Your task to perform on an android device: find which apps use the phone's location Image 0: 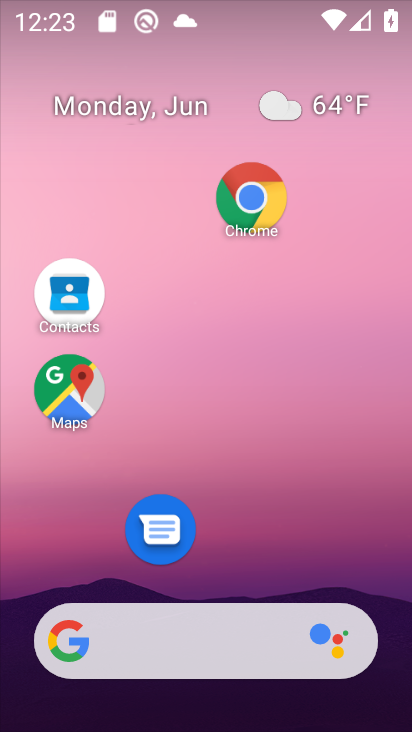
Step 0: drag from (275, 570) to (316, 132)
Your task to perform on an android device: find which apps use the phone's location Image 1: 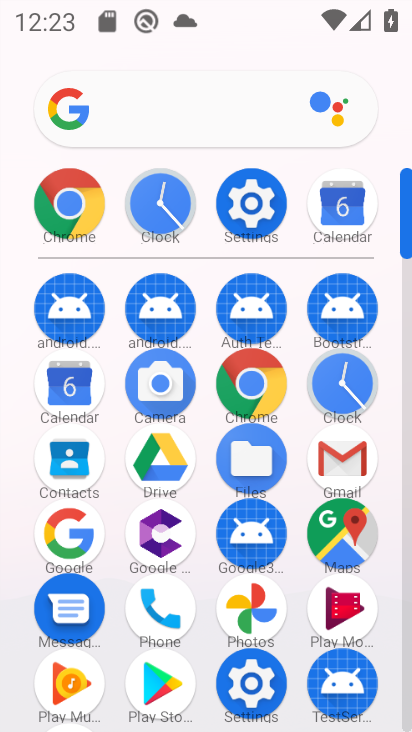
Step 1: click (255, 208)
Your task to perform on an android device: find which apps use the phone's location Image 2: 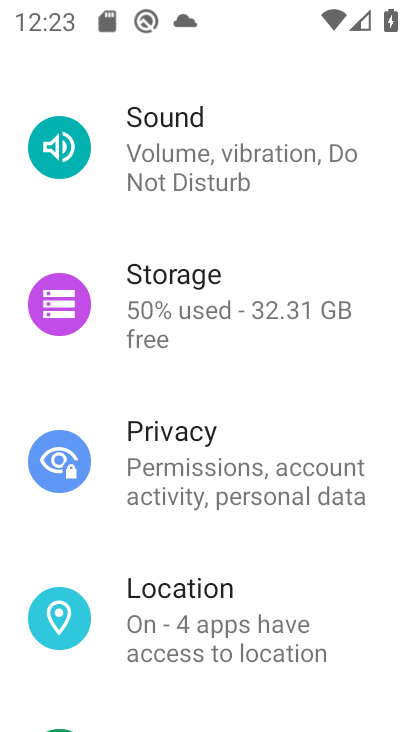
Step 2: click (140, 592)
Your task to perform on an android device: find which apps use the phone's location Image 3: 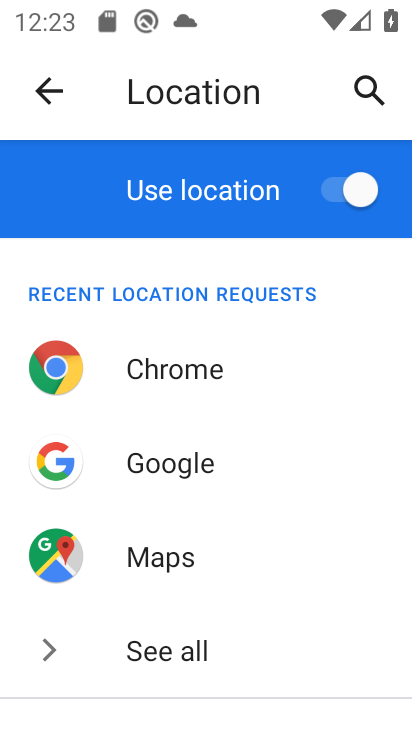
Step 3: drag from (150, 655) to (184, 267)
Your task to perform on an android device: find which apps use the phone's location Image 4: 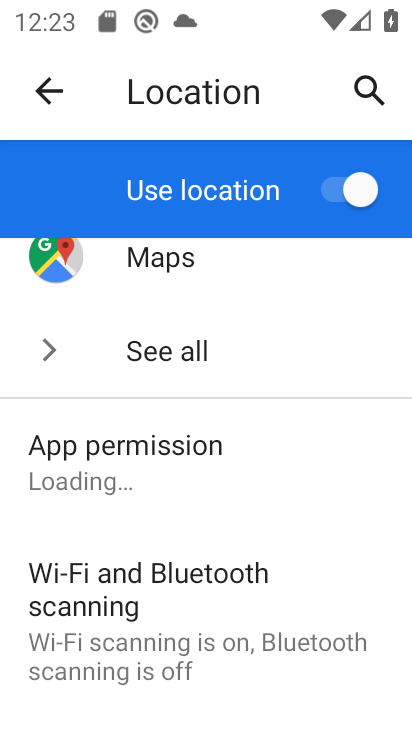
Step 4: click (183, 485)
Your task to perform on an android device: find which apps use the phone's location Image 5: 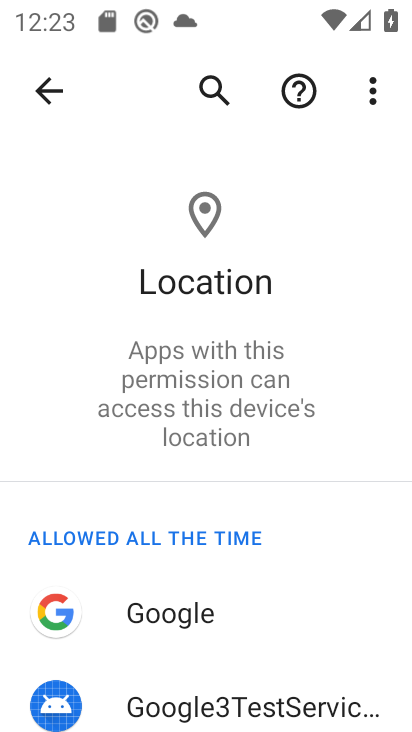
Step 5: task complete